Your task to perform on an android device: turn smart compose on in the gmail app Image 0: 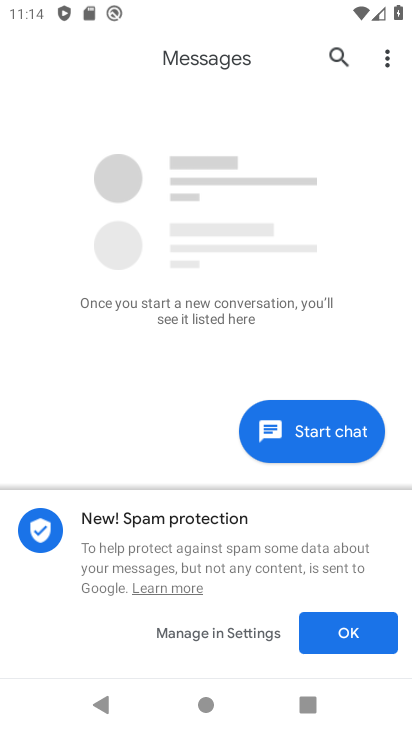
Step 0: press home button
Your task to perform on an android device: turn smart compose on in the gmail app Image 1: 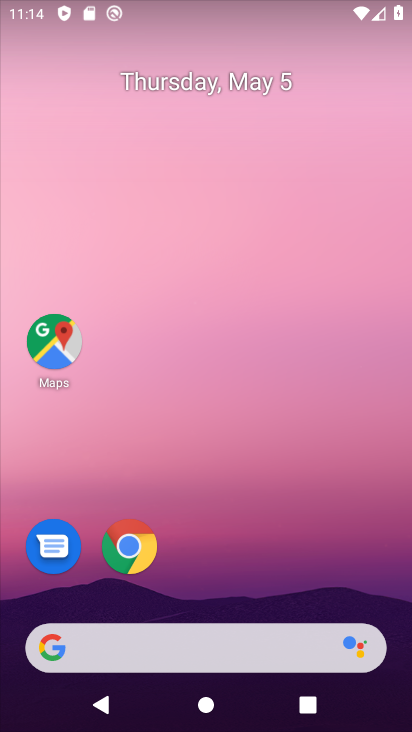
Step 1: drag from (30, 621) to (238, 240)
Your task to perform on an android device: turn smart compose on in the gmail app Image 2: 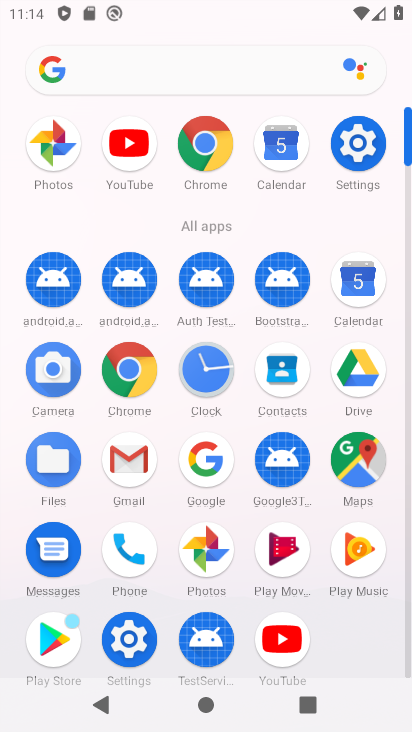
Step 2: click (139, 467)
Your task to perform on an android device: turn smart compose on in the gmail app Image 3: 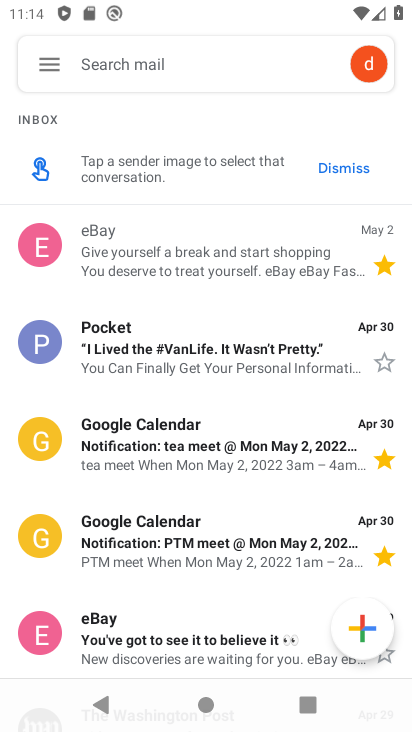
Step 3: click (44, 55)
Your task to perform on an android device: turn smart compose on in the gmail app Image 4: 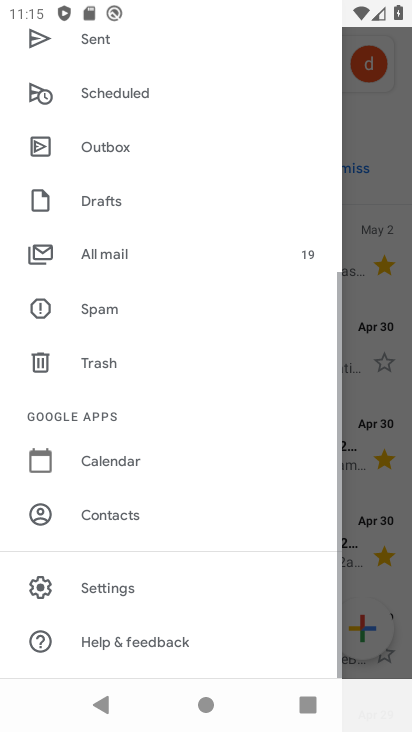
Step 4: click (90, 600)
Your task to perform on an android device: turn smart compose on in the gmail app Image 5: 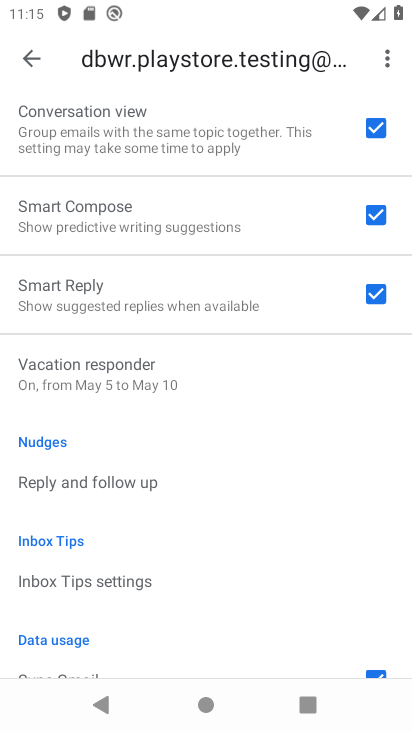
Step 5: click (367, 215)
Your task to perform on an android device: turn smart compose on in the gmail app Image 6: 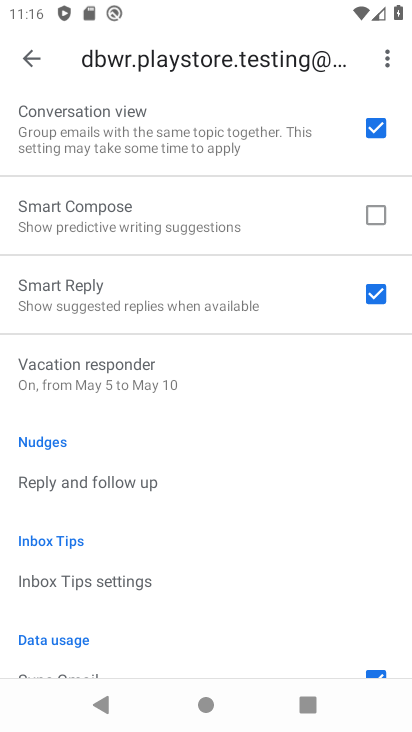
Step 6: task complete